Your task to perform on an android device: change notifications settings Image 0: 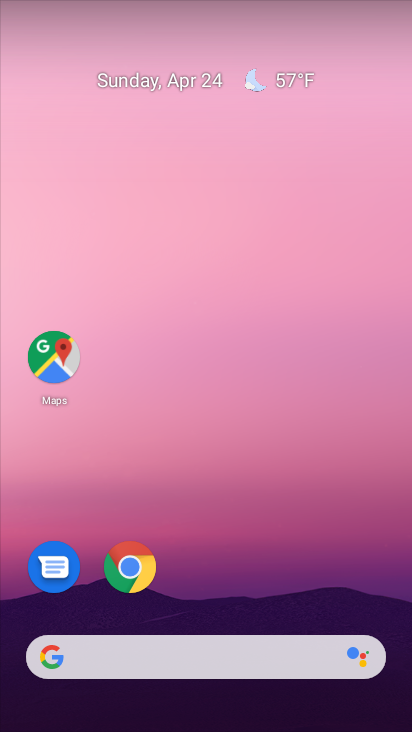
Step 0: drag from (389, 621) to (390, 120)
Your task to perform on an android device: change notifications settings Image 1: 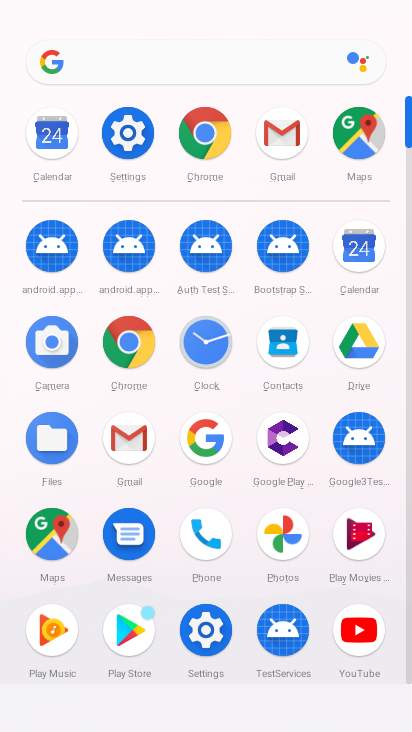
Step 1: click (130, 132)
Your task to perform on an android device: change notifications settings Image 2: 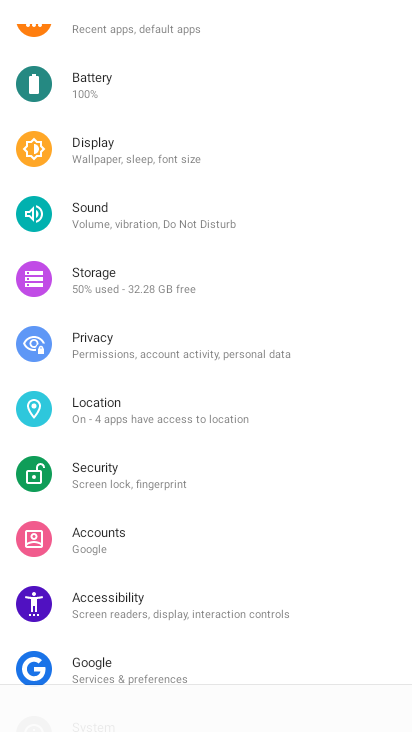
Step 2: drag from (324, 125) to (341, 493)
Your task to perform on an android device: change notifications settings Image 3: 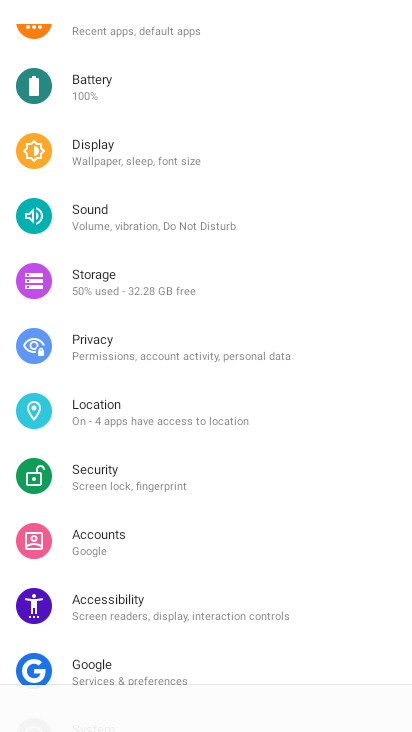
Step 3: drag from (380, 446) to (392, 591)
Your task to perform on an android device: change notifications settings Image 4: 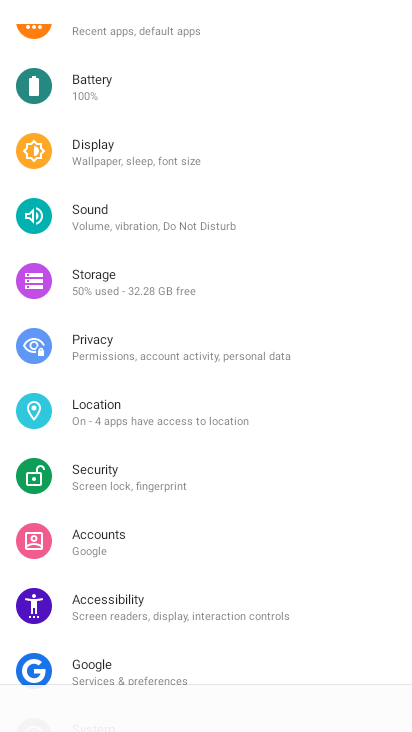
Step 4: drag from (382, 165) to (411, 527)
Your task to perform on an android device: change notifications settings Image 5: 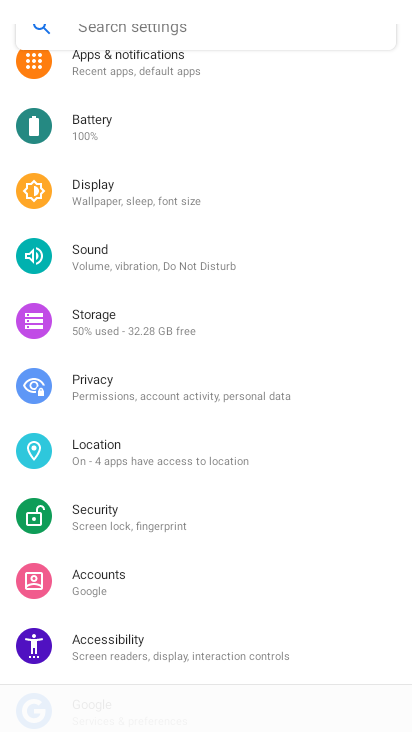
Step 5: drag from (355, 155) to (353, 550)
Your task to perform on an android device: change notifications settings Image 6: 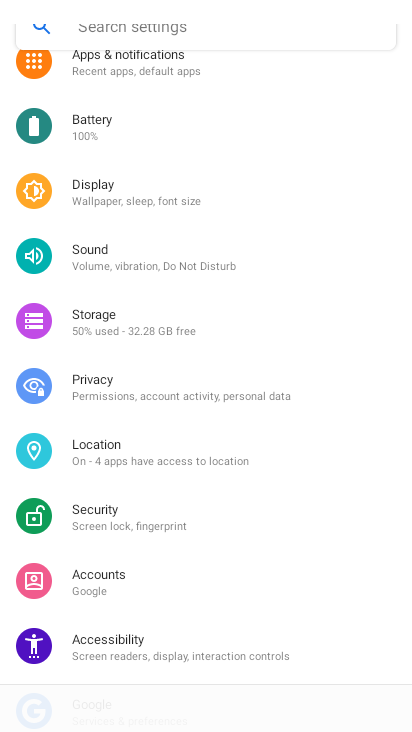
Step 6: click (120, 56)
Your task to perform on an android device: change notifications settings Image 7: 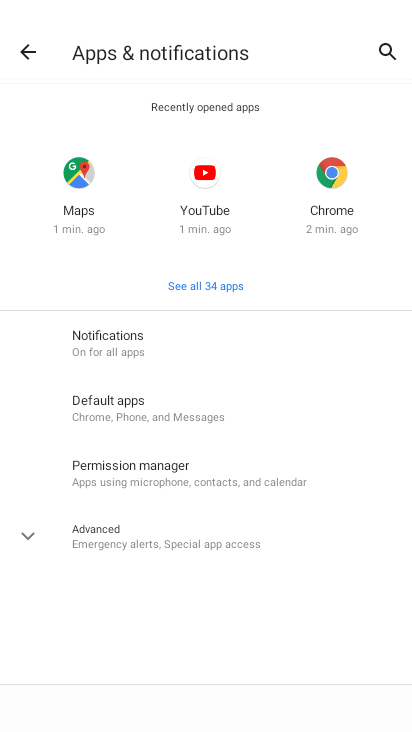
Step 7: click (99, 331)
Your task to perform on an android device: change notifications settings Image 8: 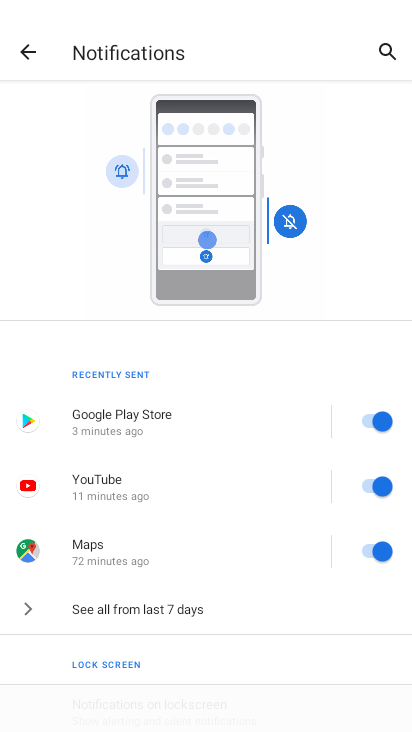
Step 8: drag from (289, 354) to (285, 272)
Your task to perform on an android device: change notifications settings Image 9: 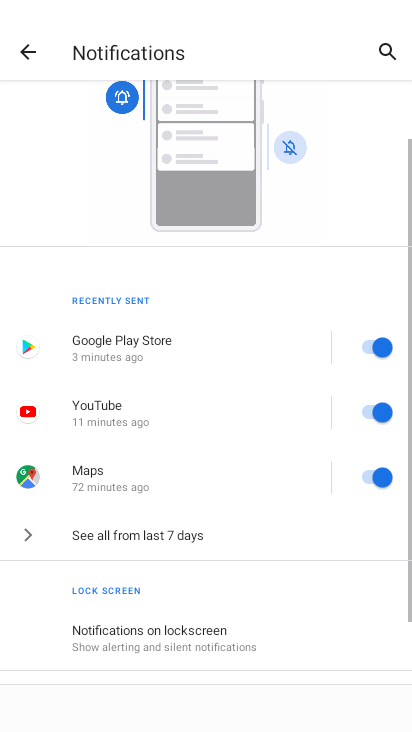
Step 9: drag from (240, 521) to (240, 322)
Your task to perform on an android device: change notifications settings Image 10: 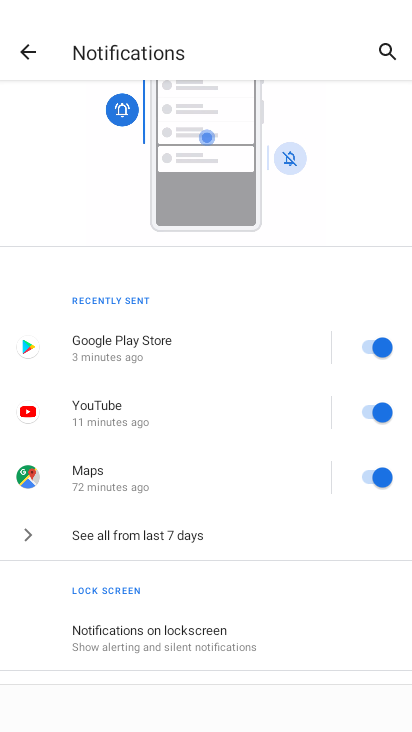
Step 10: click (298, 397)
Your task to perform on an android device: change notifications settings Image 11: 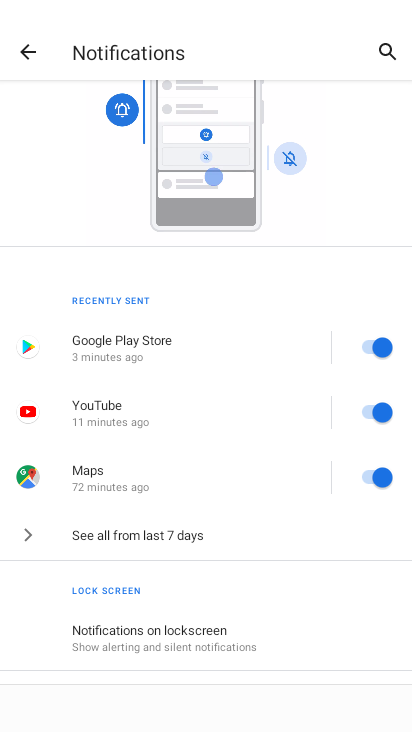
Step 11: click (291, 292)
Your task to perform on an android device: change notifications settings Image 12: 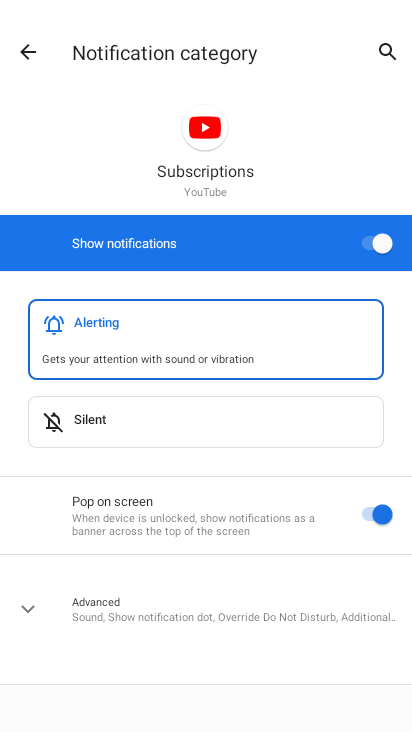
Step 12: click (24, 54)
Your task to perform on an android device: change notifications settings Image 13: 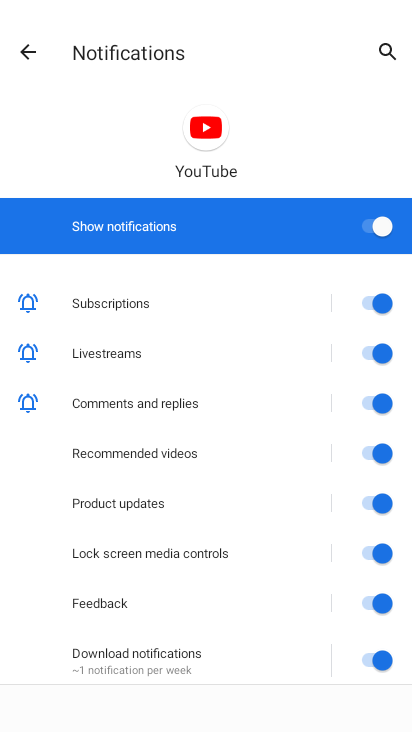
Step 13: drag from (260, 572) to (261, 284)
Your task to perform on an android device: change notifications settings Image 14: 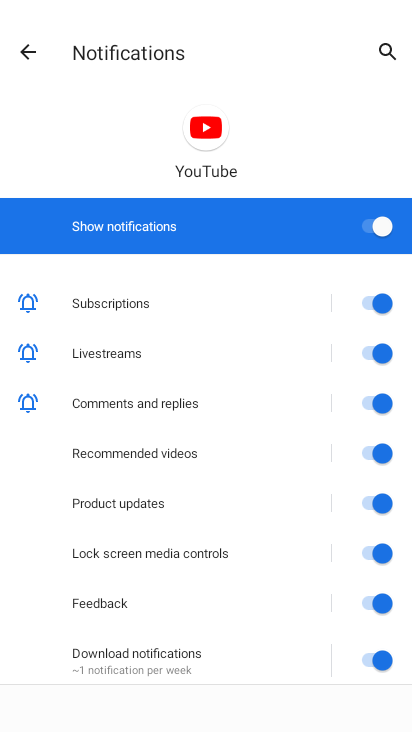
Step 14: click (366, 304)
Your task to perform on an android device: change notifications settings Image 15: 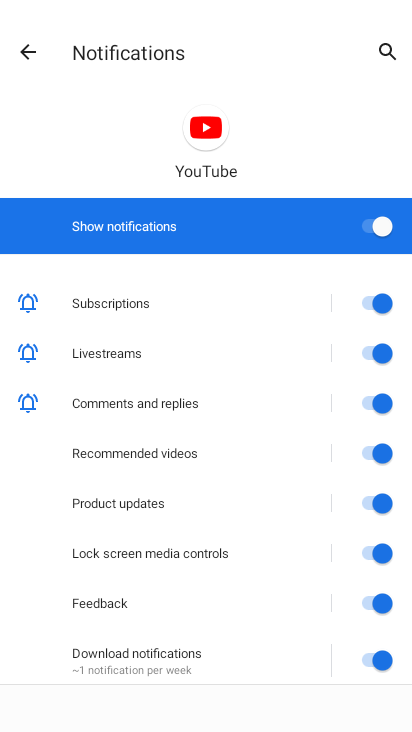
Step 15: drag from (365, 347) to (360, 405)
Your task to perform on an android device: change notifications settings Image 16: 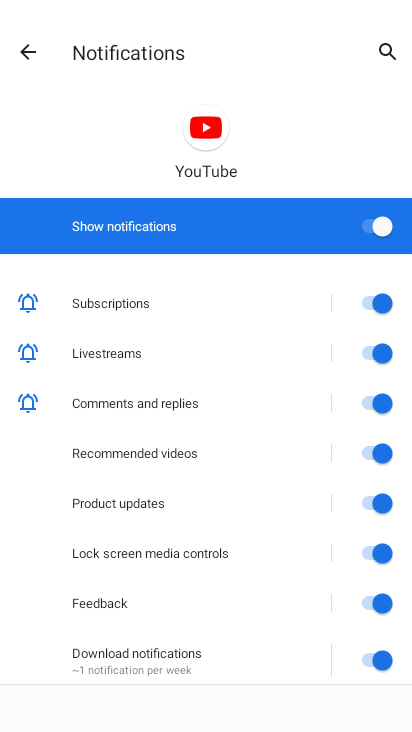
Step 16: click (364, 228)
Your task to perform on an android device: change notifications settings Image 17: 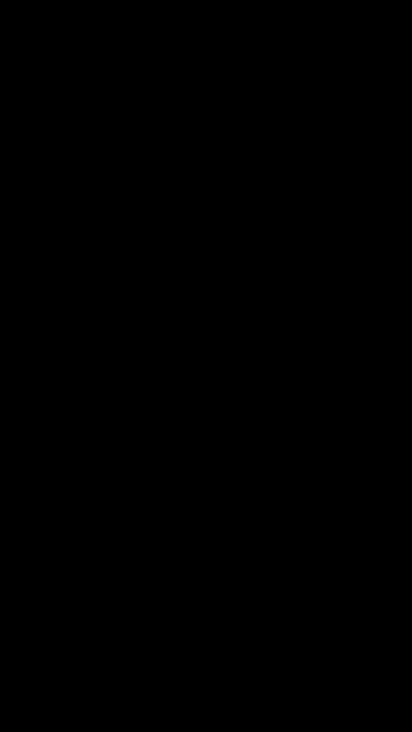
Step 17: task complete